Your task to perform on an android device: turn off picture-in-picture Image 0: 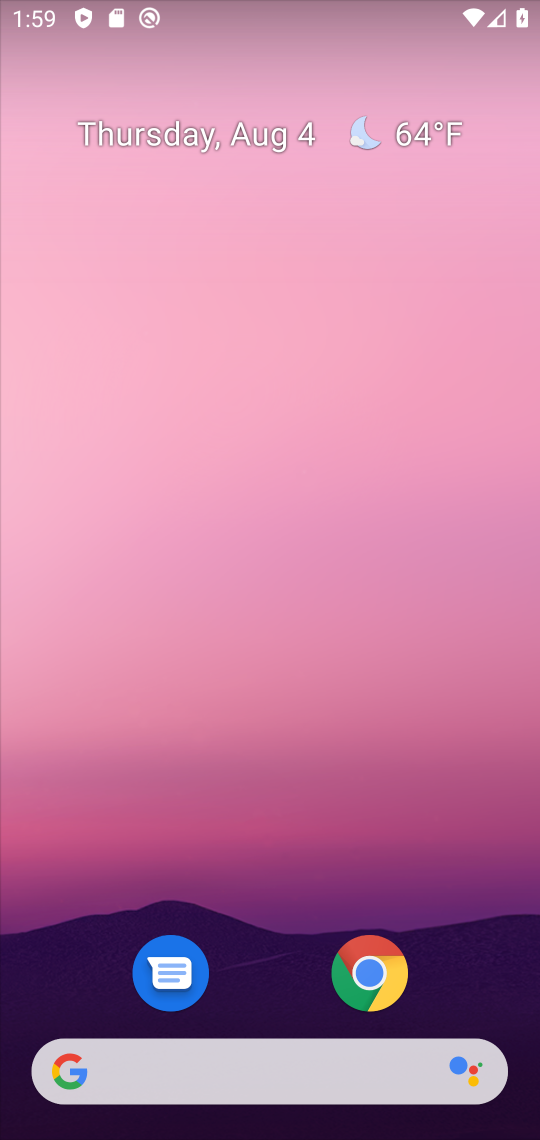
Step 0: drag from (209, 845) to (143, 184)
Your task to perform on an android device: turn off picture-in-picture Image 1: 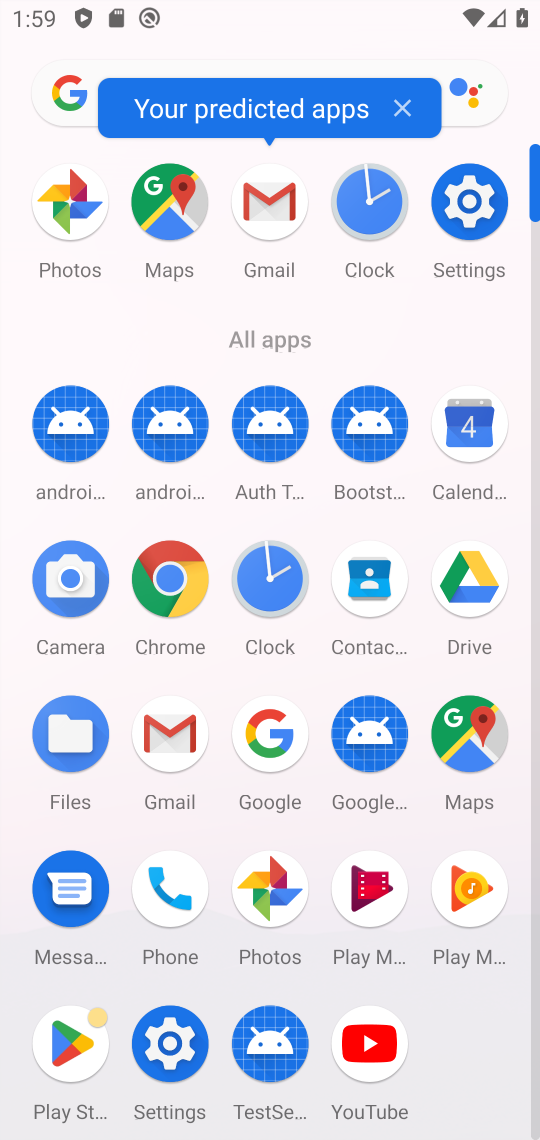
Step 1: click (486, 236)
Your task to perform on an android device: turn off picture-in-picture Image 2: 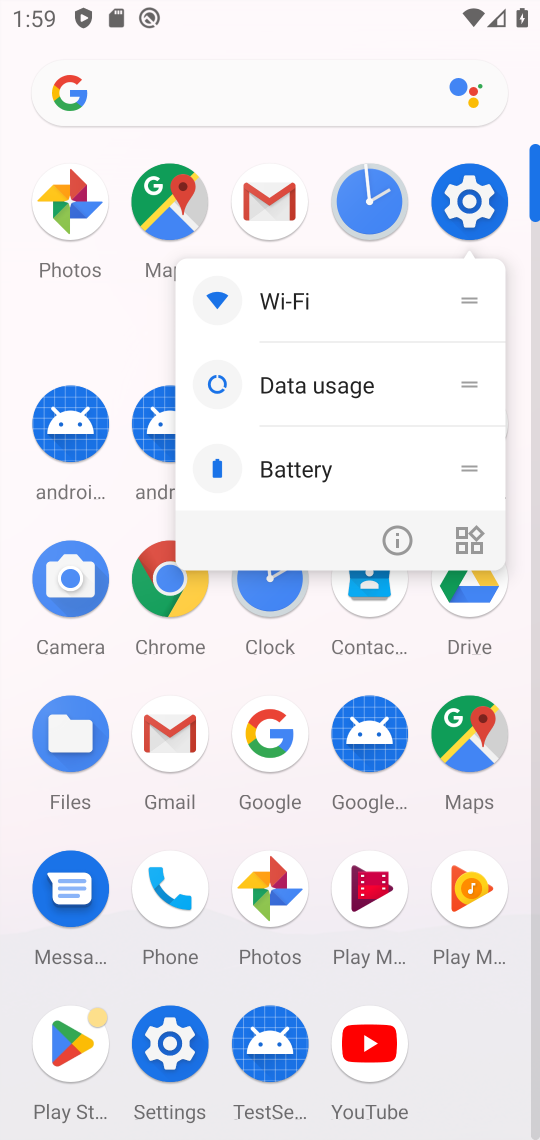
Step 2: click (446, 196)
Your task to perform on an android device: turn off picture-in-picture Image 3: 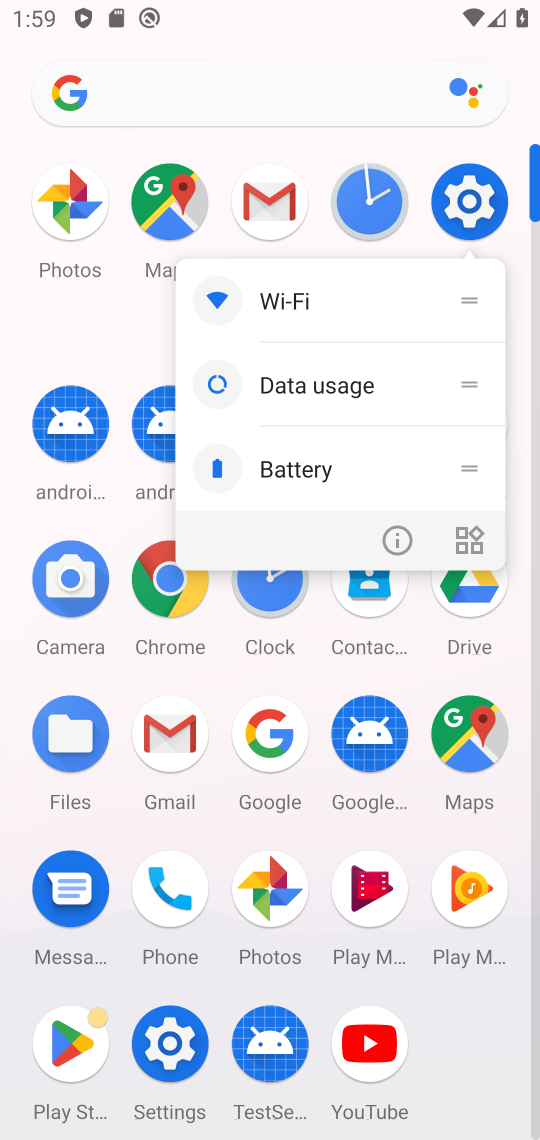
Step 3: click (446, 196)
Your task to perform on an android device: turn off picture-in-picture Image 4: 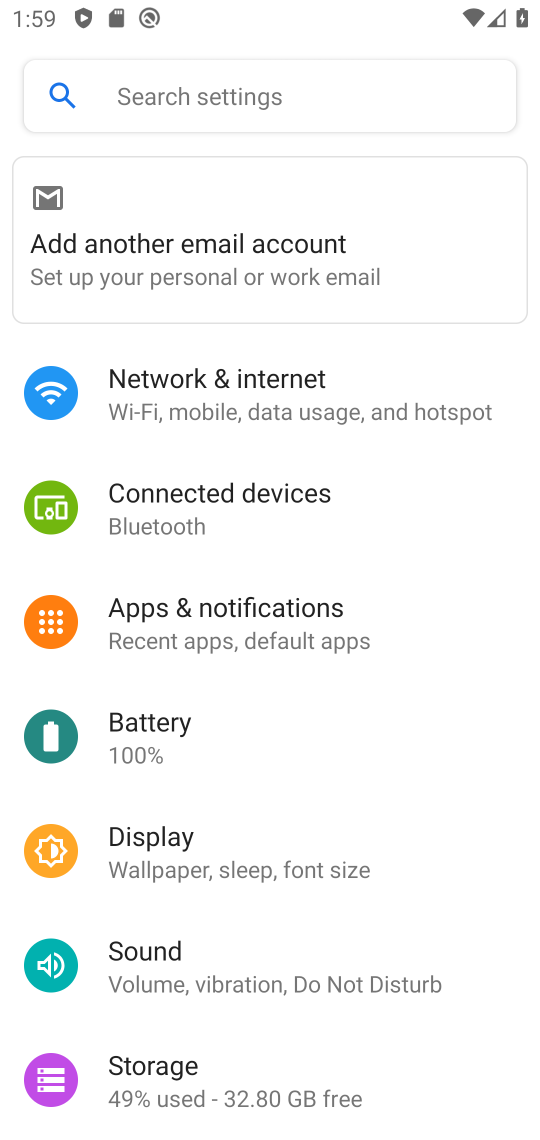
Step 4: click (250, 625)
Your task to perform on an android device: turn off picture-in-picture Image 5: 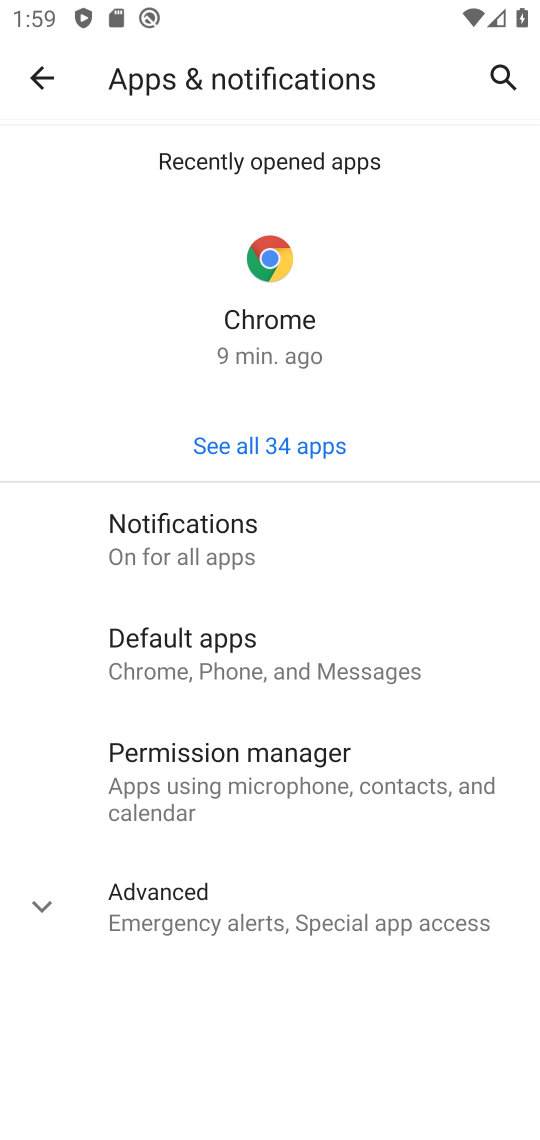
Step 5: click (269, 863)
Your task to perform on an android device: turn off picture-in-picture Image 6: 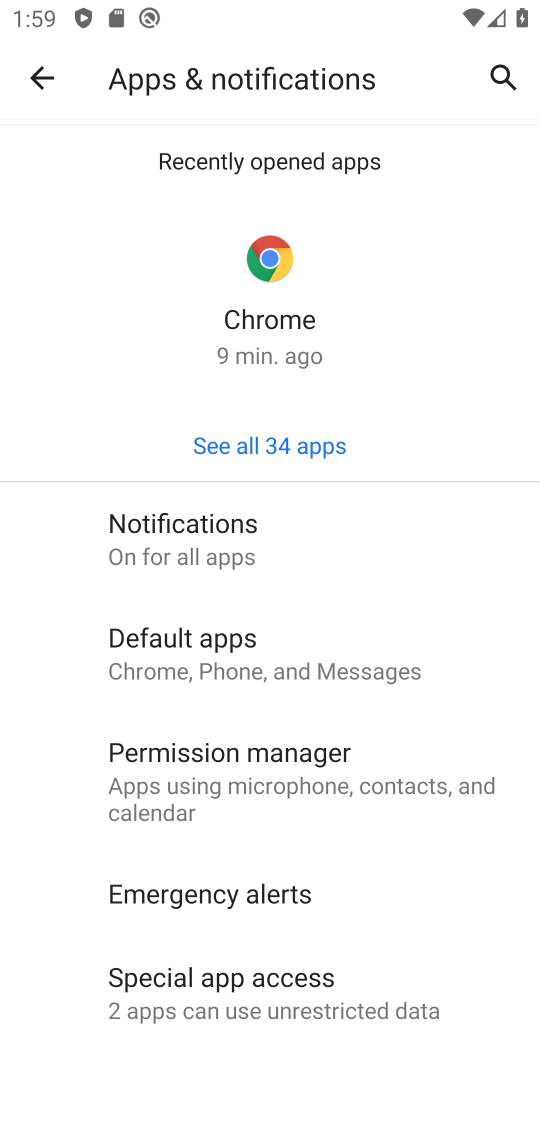
Step 6: click (238, 981)
Your task to perform on an android device: turn off picture-in-picture Image 7: 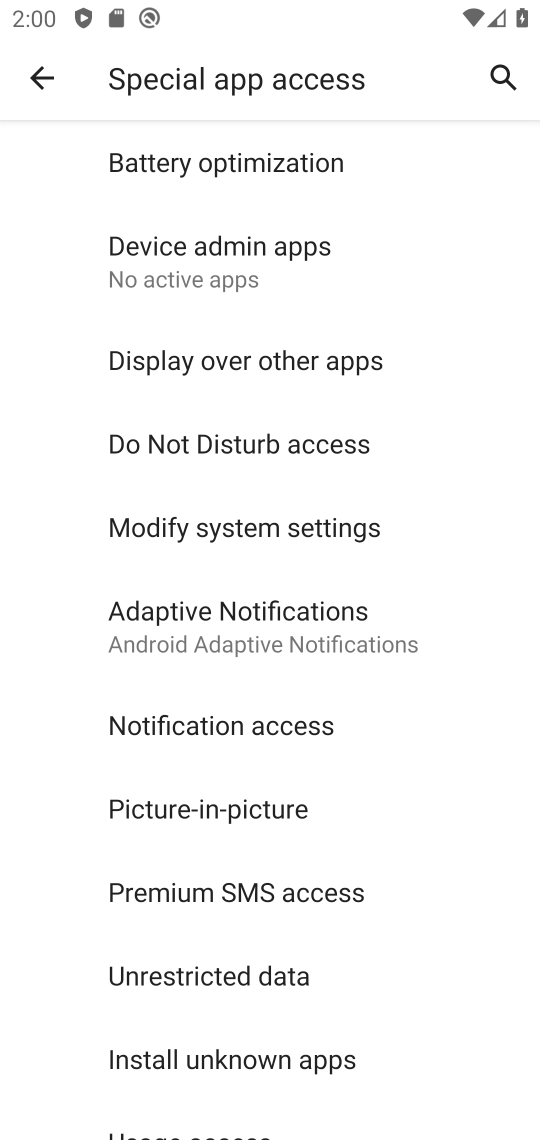
Step 7: click (181, 808)
Your task to perform on an android device: turn off picture-in-picture Image 8: 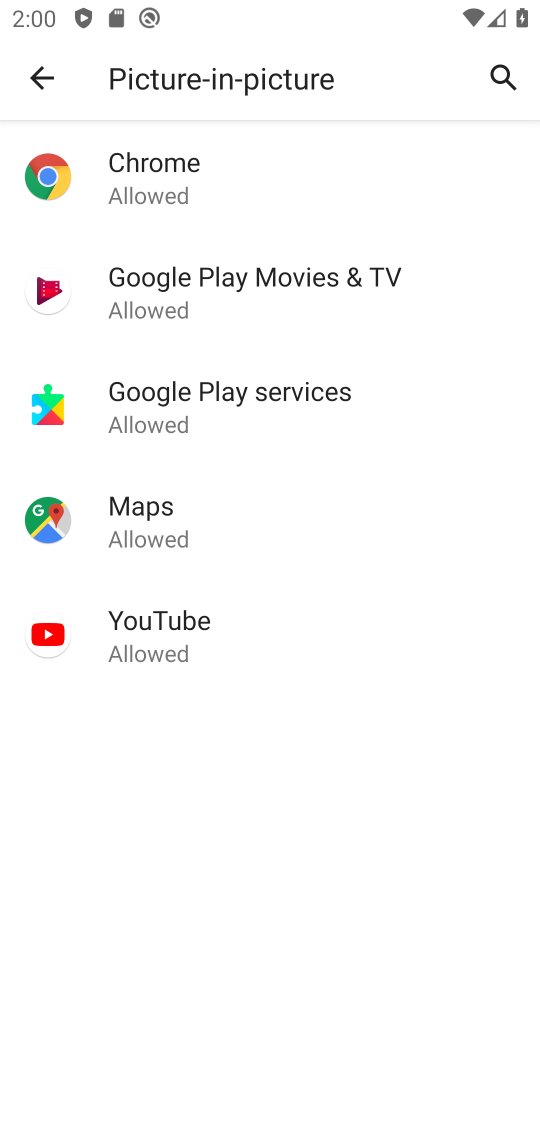
Step 8: task complete